Your task to perform on an android device: What is the recent news? Image 0: 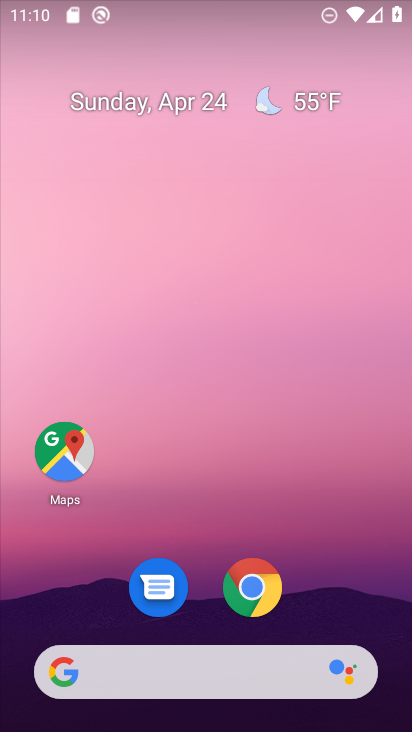
Step 0: drag from (312, 586) to (304, 117)
Your task to perform on an android device: What is the recent news? Image 1: 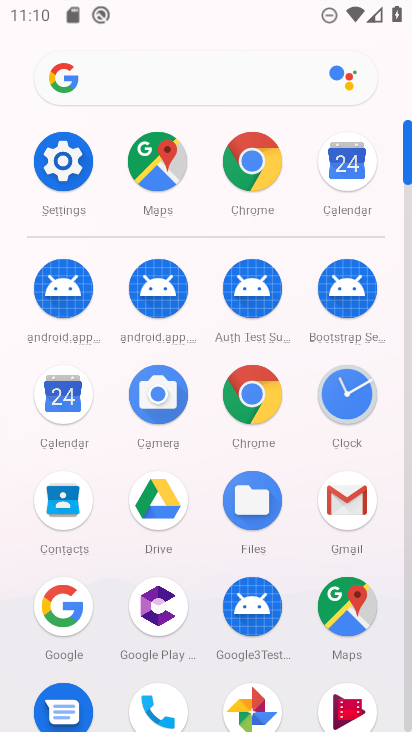
Step 1: click (256, 395)
Your task to perform on an android device: What is the recent news? Image 2: 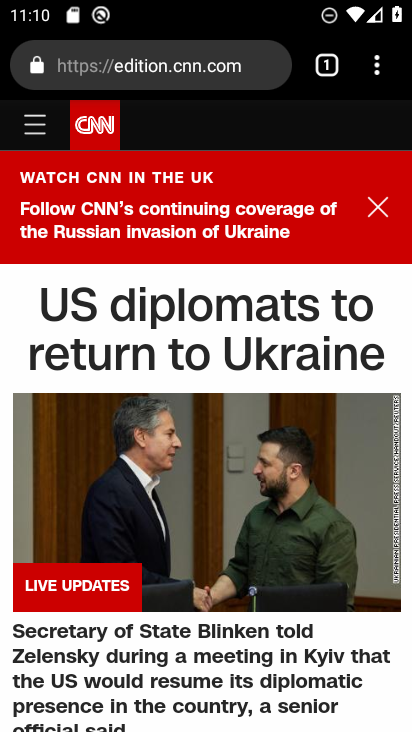
Step 2: click (199, 74)
Your task to perform on an android device: What is the recent news? Image 3: 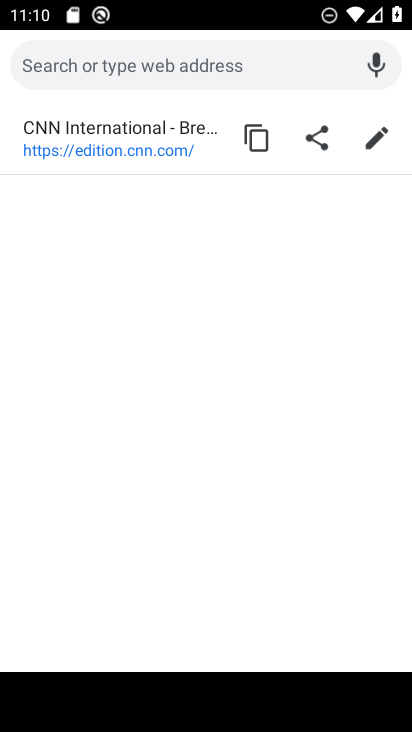
Step 3: type "news"
Your task to perform on an android device: What is the recent news? Image 4: 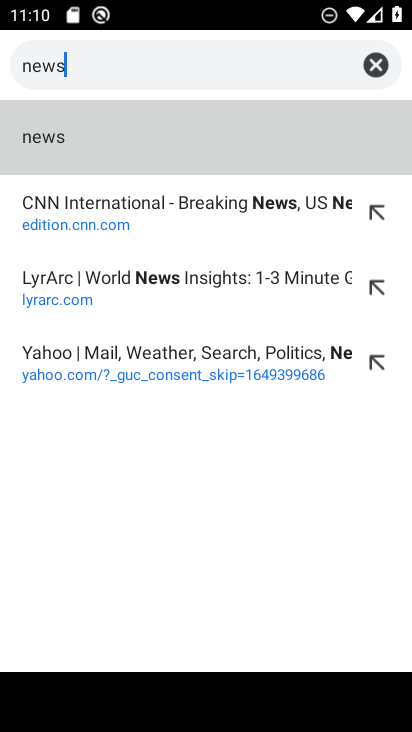
Step 4: click (61, 129)
Your task to perform on an android device: What is the recent news? Image 5: 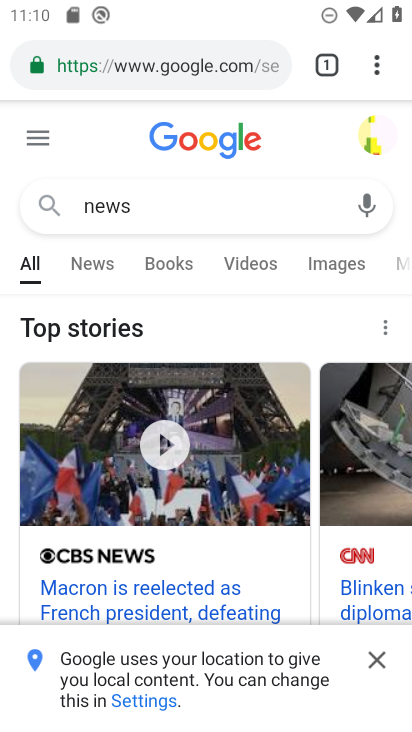
Step 5: click (84, 260)
Your task to perform on an android device: What is the recent news? Image 6: 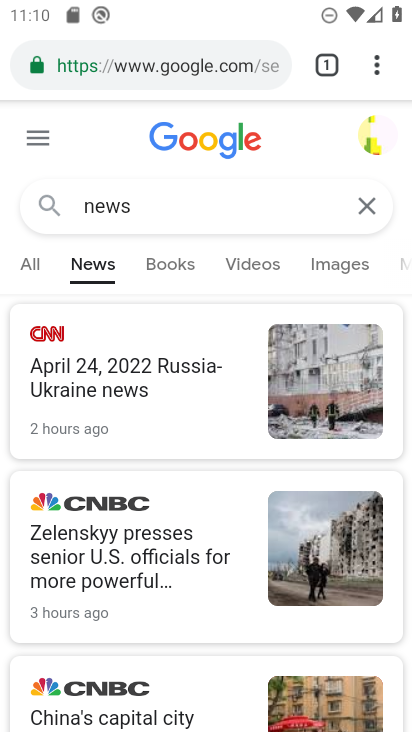
Step 6: task complete